Your task to perform on an android device: change the upload size in google photos Image 0: 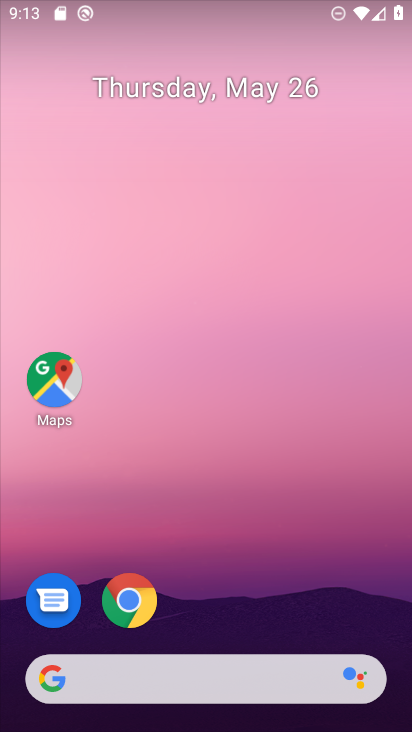
Step 0: drag from (163, 646) to (224, 219)
Your task to perform on an android device: change the upload size in google photos Image 1: 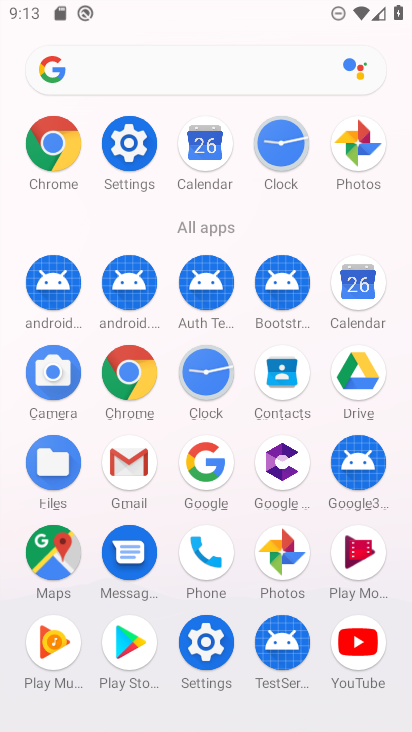
Step 1: click (283, 551)
Your task to perform on an android device: change the upload size in google photos Image 2: 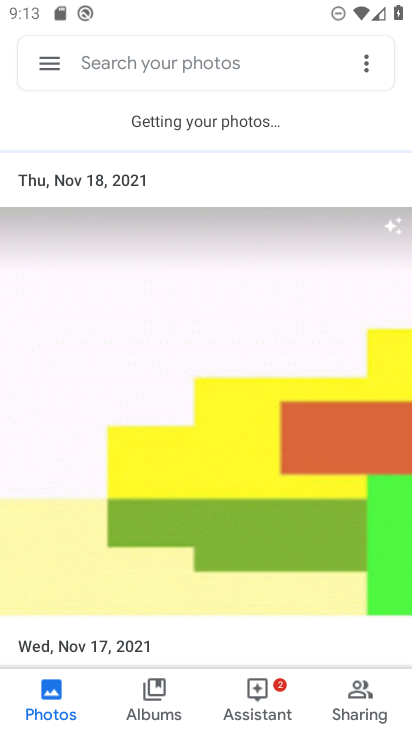
Step 2: click (46, 60)
Your task to perform on an android device: change the upload size in google photos Image 3: 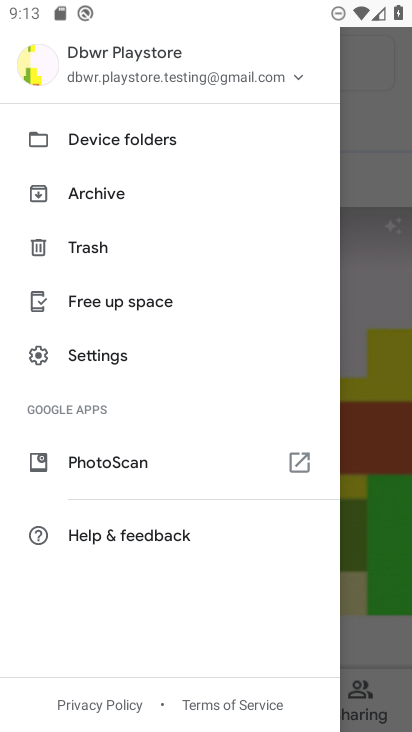
Step 3: click (107, 349)
Your task to perform on an android device: change the upload size in google photos Image 4: 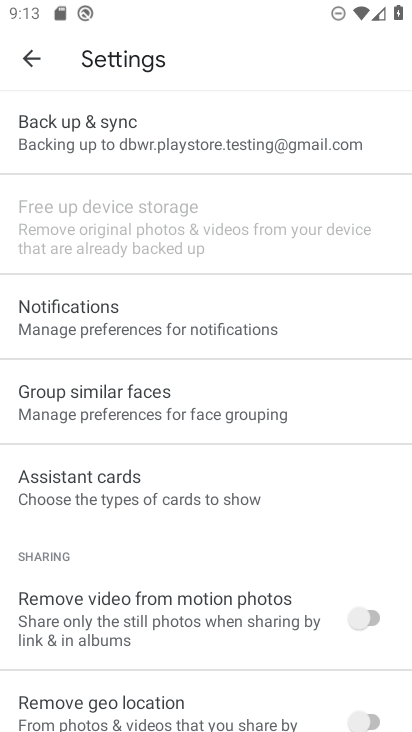
Step 4: click (93, 125)
Your task to perform on an android device: change the upload size in google photos Image 5: 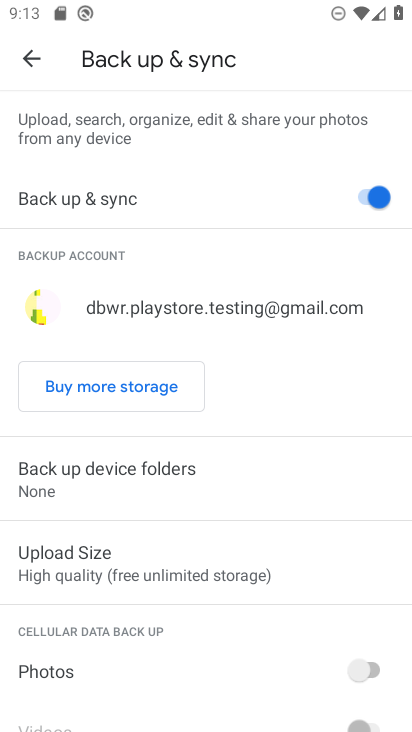
Step 5: click (76, 566)
Your task to perform on an android device: change the upload size in google photos Image 6: 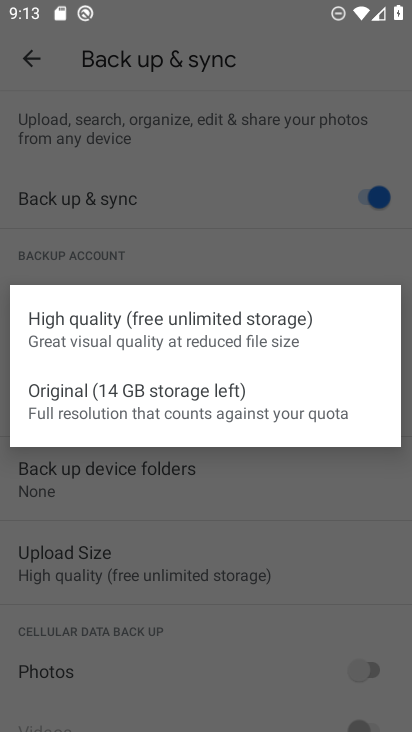
Step 6: click (59, 395)
Your task to perform on an android device: change the upload size in google photos Image 7: 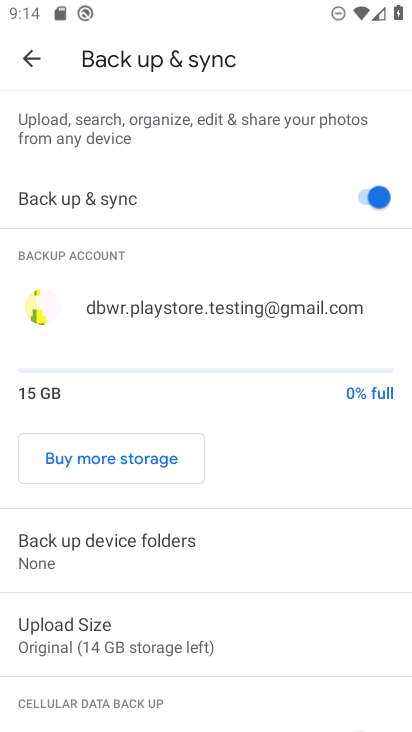
Step 7: task complete